Your task to perform on an android device: Open Maps and search for coffee Image 0: 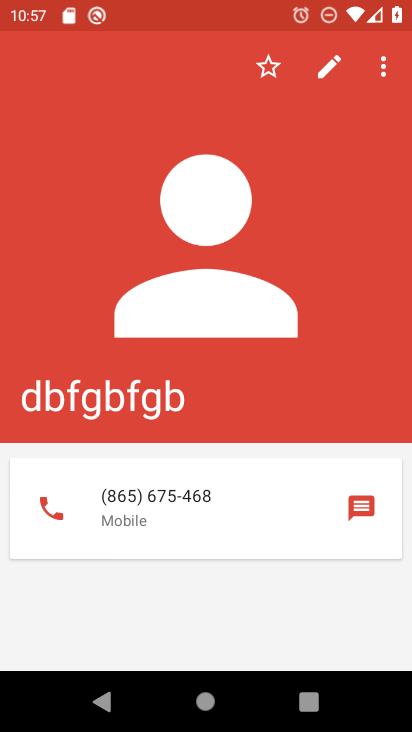
Step 0: press home button
Your task to perform on an android device: Open Maps and search for coffee Image 1: 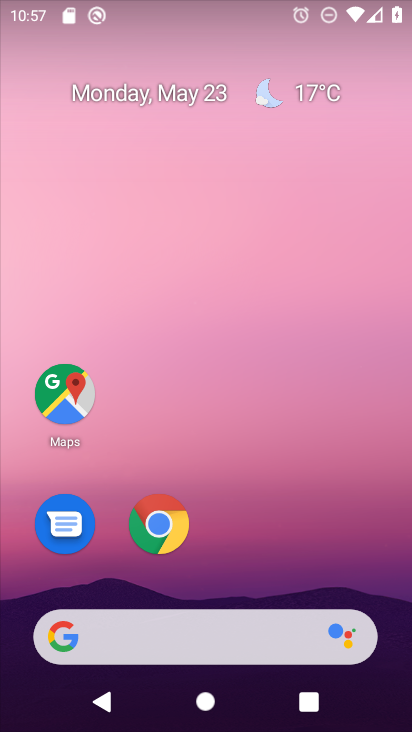
Step 1: click (82, 413)
Your task to perform on an android device: Open Maps and search for coffee Image 2: 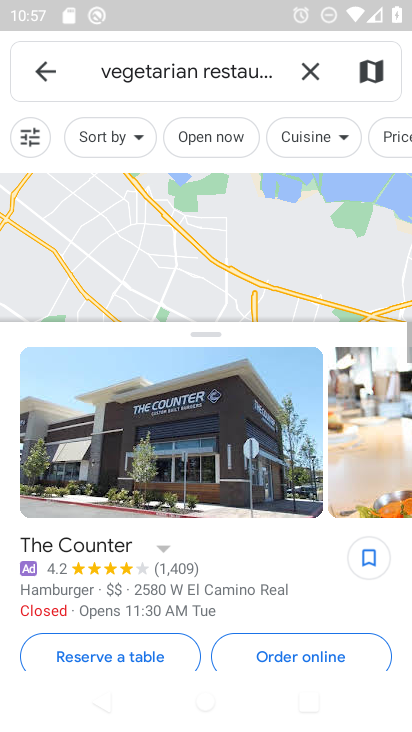
Step 2: click (306, 69)
Your task to perform on an android device: Open Maps and search for coffee Image 3: 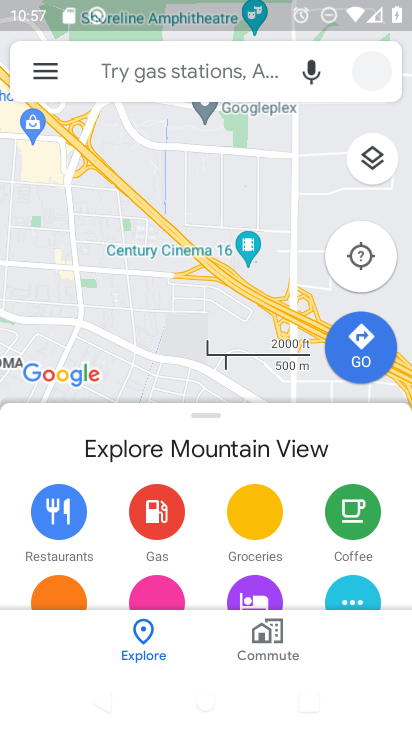
Step 3: click (198, 70)
Your task to perform on an android device: Open Maps and search for coffee Image 4: 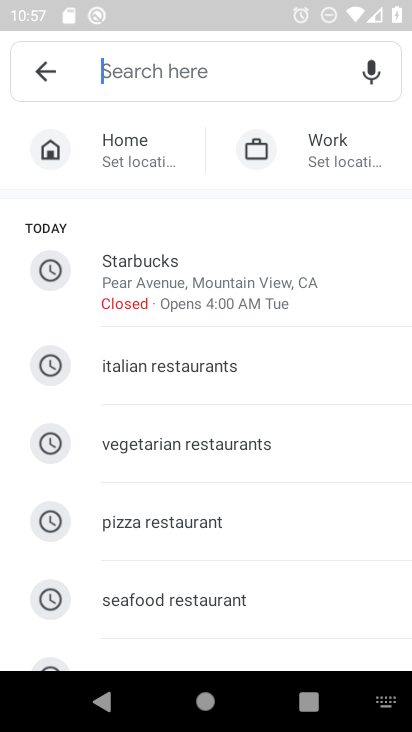
Step 4: type "coffee"
Your task to perform on an android device: Open Maps and search for coffee Image 5: 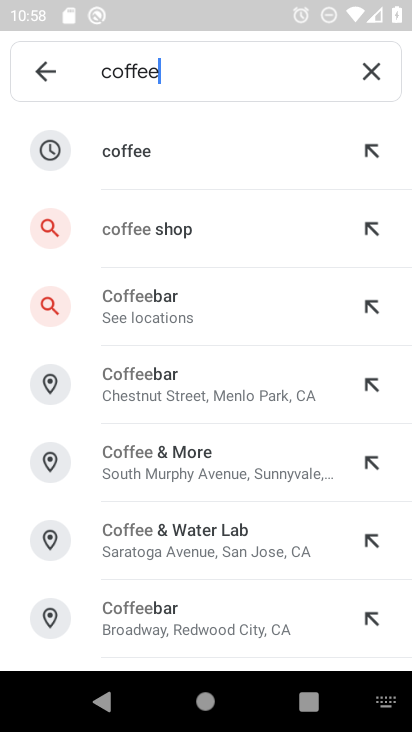
Step 5: click (158, 146)
Your task to perform on an android device: Open Maps and search for coffee Image 6: 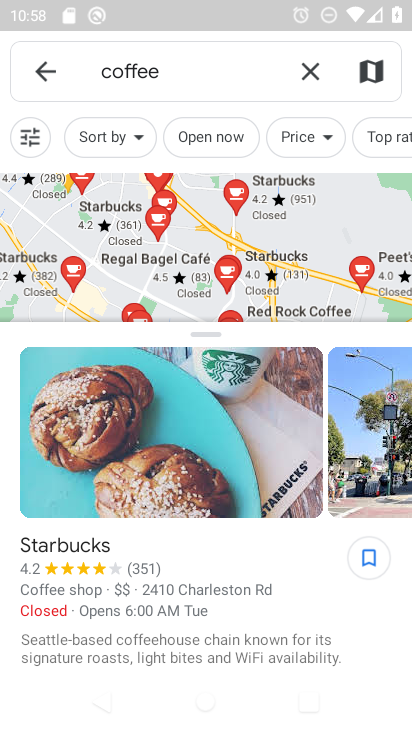
Step 6: task complete